Your task to perform on an android device: Open Google Chrome Image 0: 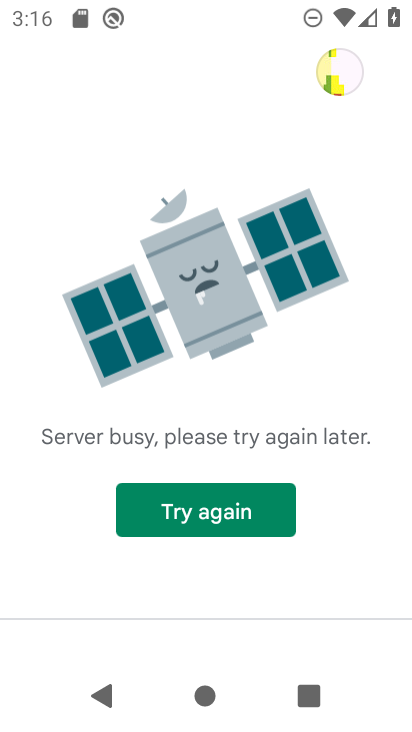
Step 0: press home button
Your task to perform on an android device: Open Google Chrome Image 1: 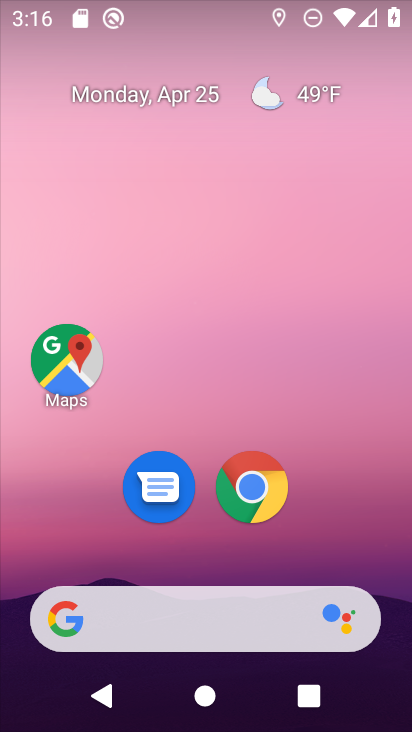
Step 1: click (257, 497)
Your task to perform on an android device: Open Google Chrome Image 2: 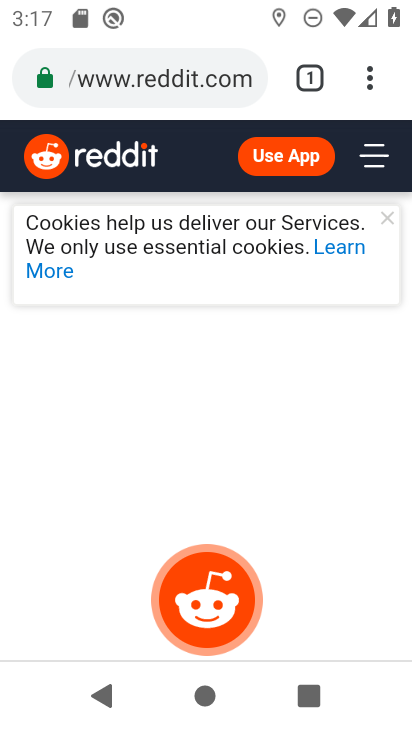
Step 2: task complete